Your task to perform on an android device: Open accessibility settings Image 0: 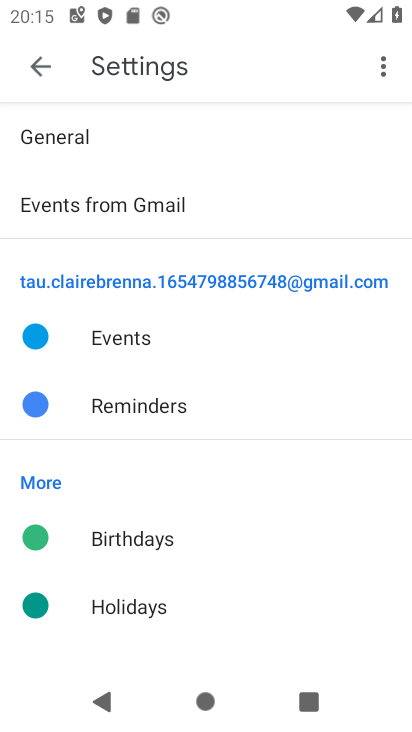
Step 0: press home button
Your task to perform on an android device: Open accessibility settings Image 1: 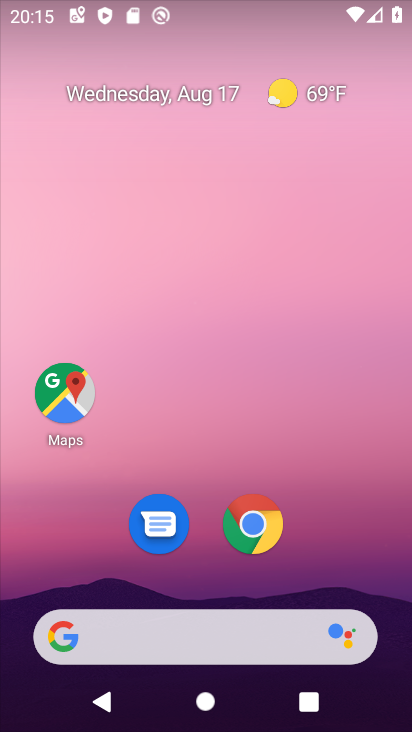
Step 1: drag from (310, 534) to (277, 76)
Your task to perform on an android device: Open accessibility settings Image 2: 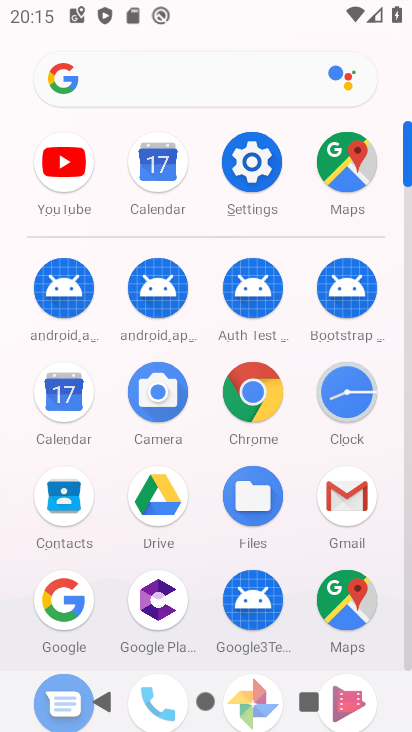
Step 2: click (255, 160)
Your task to perform on an android device: Open accessibility settings Image 3: 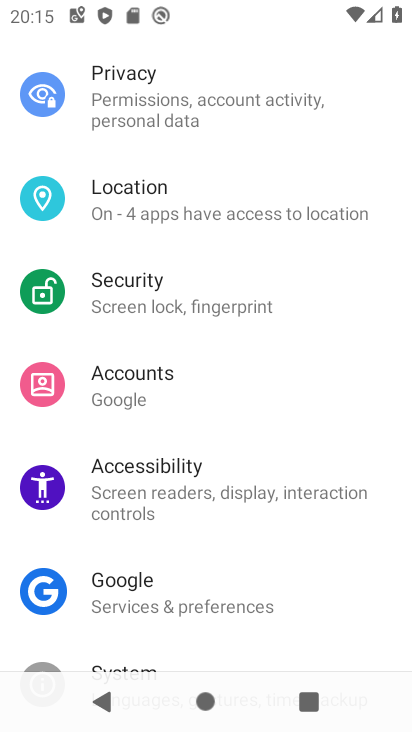
Step 3: click (229, 495)
Your task to perform on an android device: Open accessibility settings Image 4: 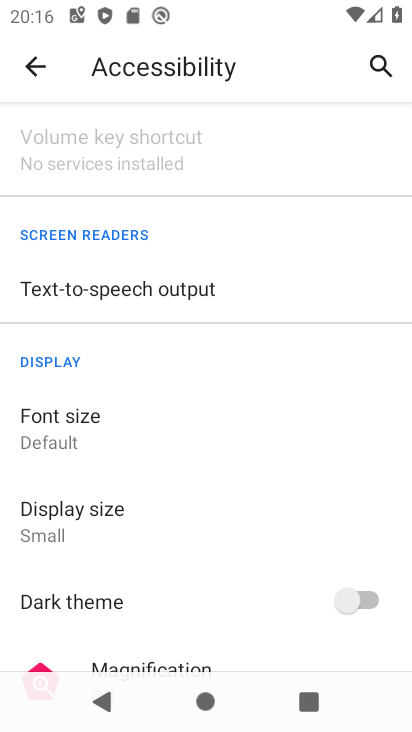
Step 4: task complete